Your task to perform on an android device: all mails in gmail Image 0: 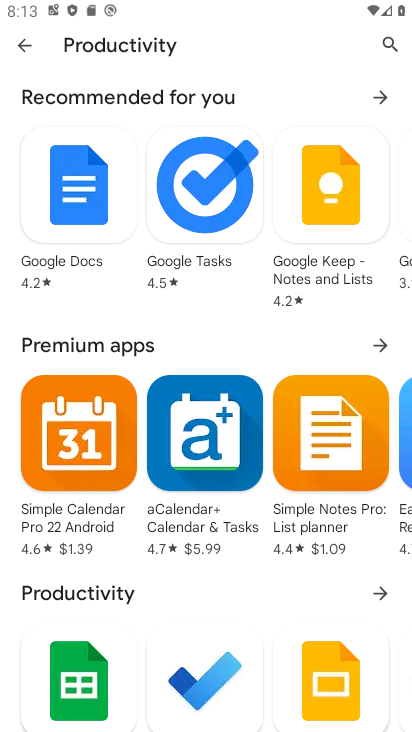
Step 0: press home button
Your task to perform on an android device: all mails in gmail Image 1: 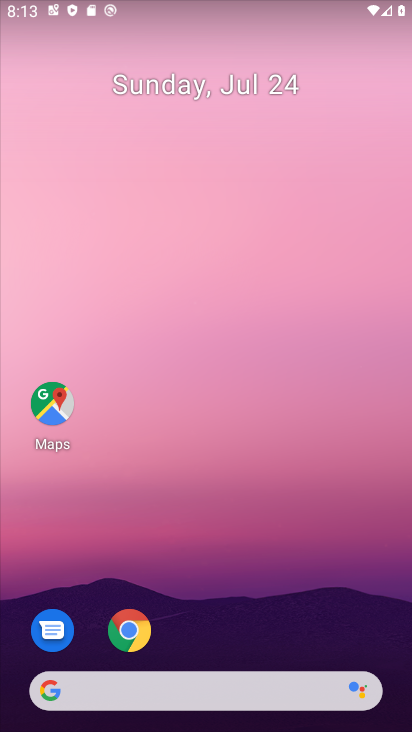
Step 1: drag from (256, 638) to (239, 178)
Your task to perform on an android device: all mails in gmail Image 2: 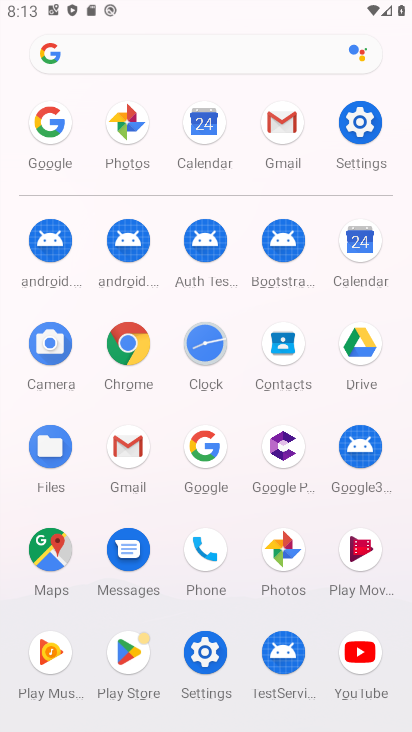
Step 2: click (266, 143)
Your task to perform on an android device: all mails in gmail Image 3: 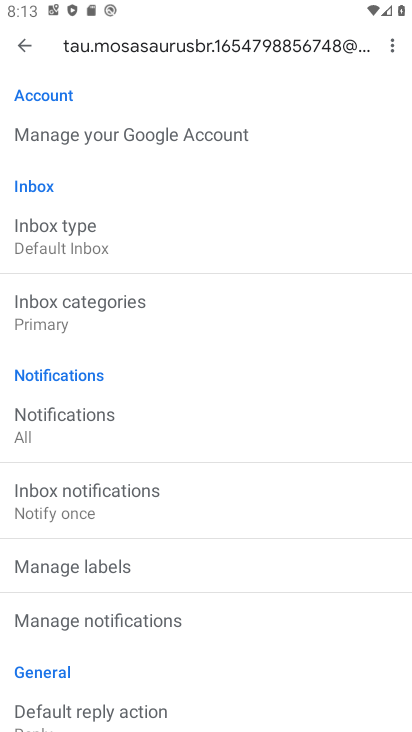
Step 3: click (33, 43)
Your task to perform on an android device: all mails in gmail Image 4: 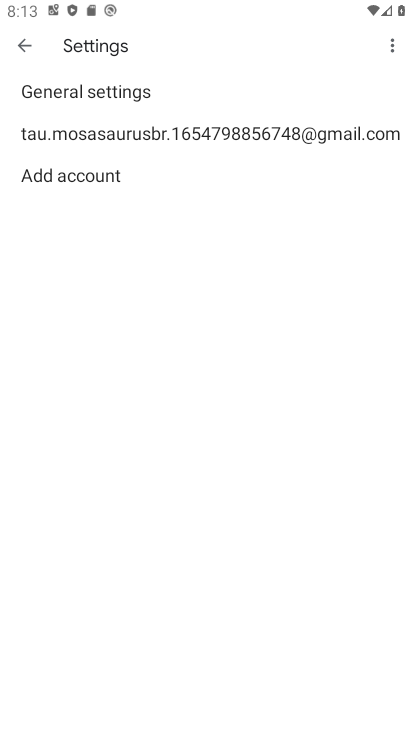
Step 4: click (28, 49)
Your task to perform on an android device: all mails in gmail Image 5: 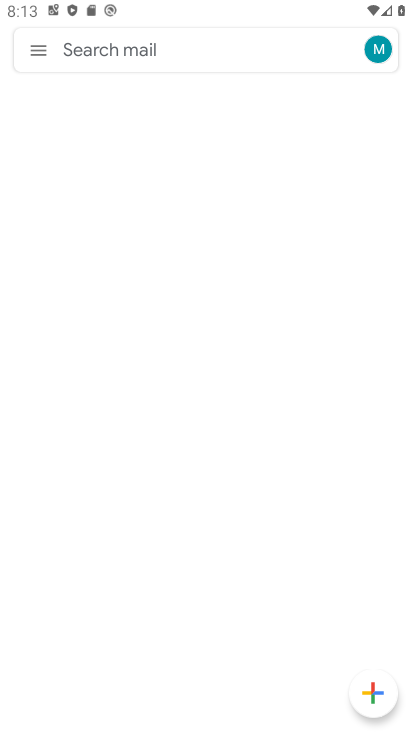
Step 5: click (28, 49)
Your task to perform on an android device: all mails in gmail Image 6: 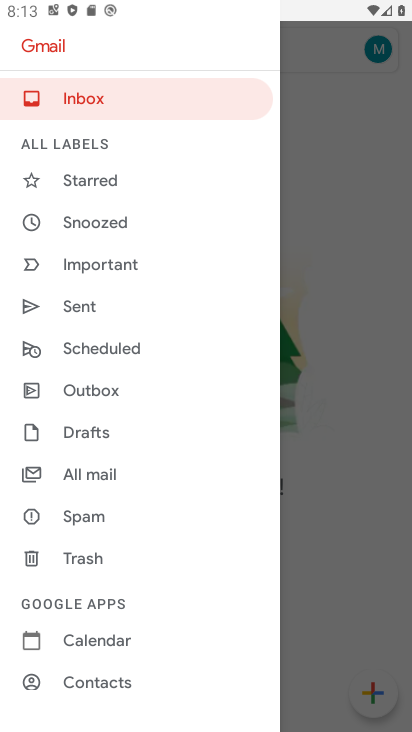
Step 6: click (81, 480)
Your task to perform on an android device: all mails in gmail Image 7: 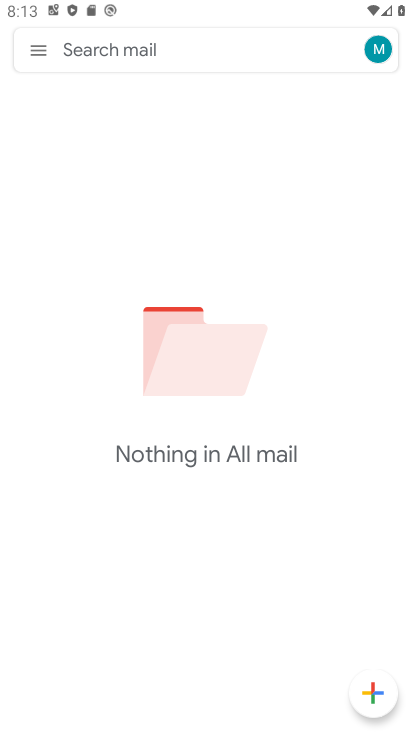
Step 7: task complete